Your task to perform on an android device: Clear the cart on ebay.com. Search for usb-c to usb-b on ebay.com, select the first entry, add it to the cart, then select checkout. Image 0: 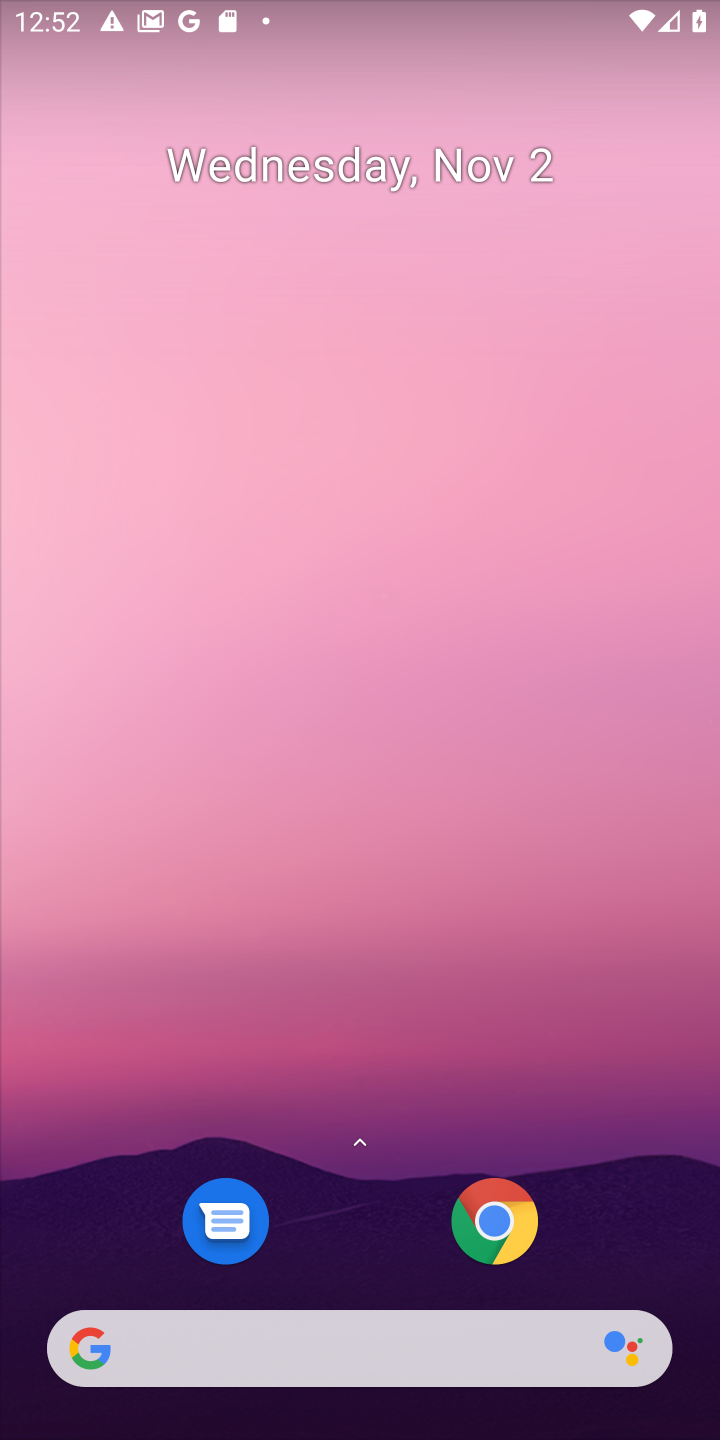
Step 0: click (277, 1388)
Your task to perform on an android device: Clear the cart on ebay.com. Search for usb-c to usb-b on ebay.com, select the first entry, add it to the cart, then select checkout. Image 1: 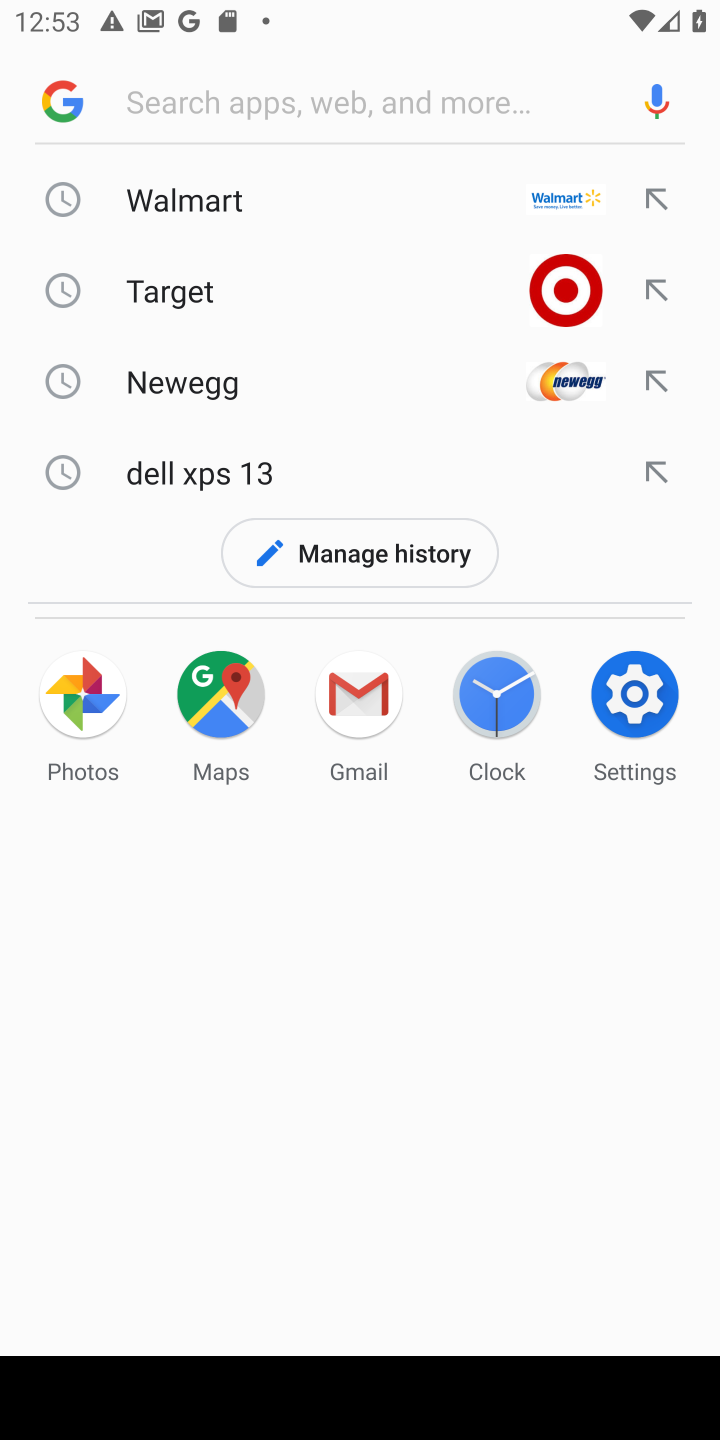
Step 1: type "ebay.com"
Your task to perform on an android device: Clear the cart on ebay.com. Search for usb-c to usb-b on ebay.com, select the first entry, add it to the cart, then select checkout. Image 2: 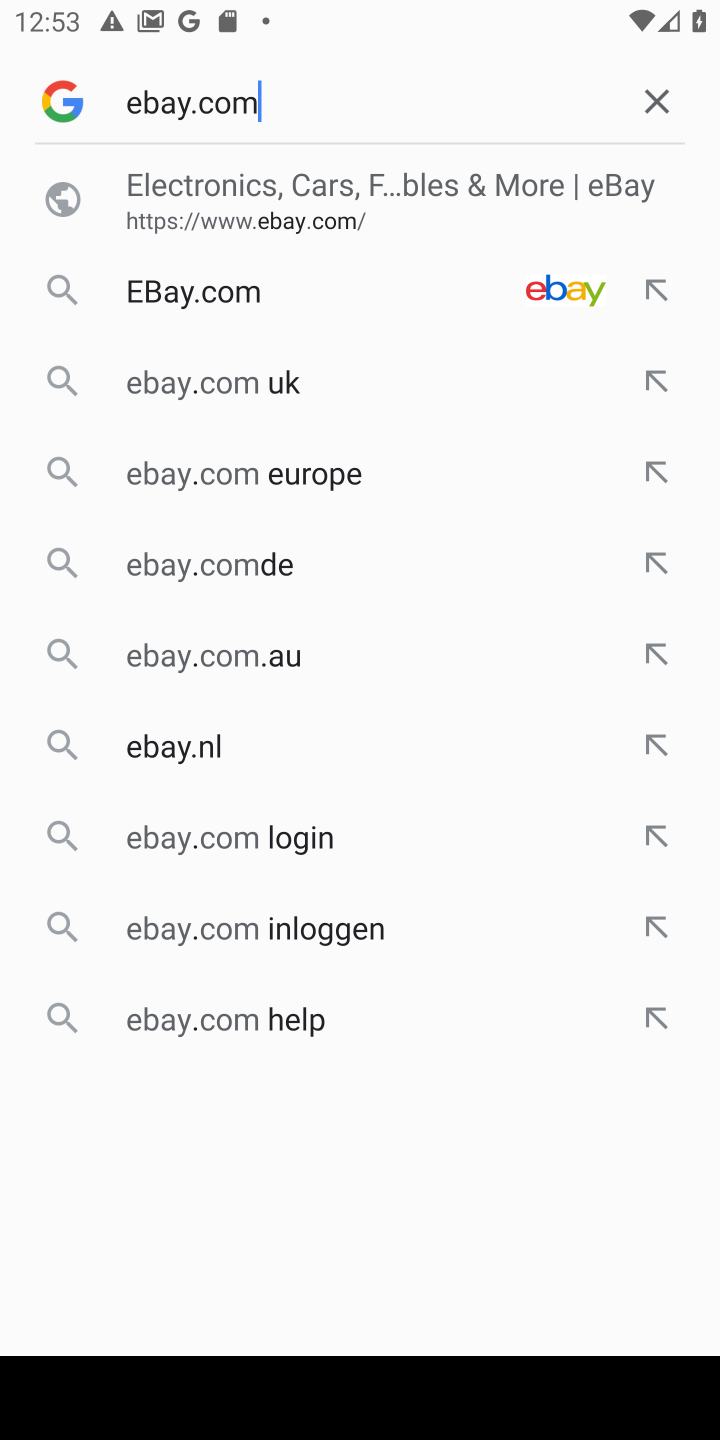
Step 2: click (243, 198)
Your task to perform on an android device: Clear the cart on ebay.com. Search for usb-c to usb-b on ebay.com, select the first entry, add it to the cart, then select checkout. Image 3: 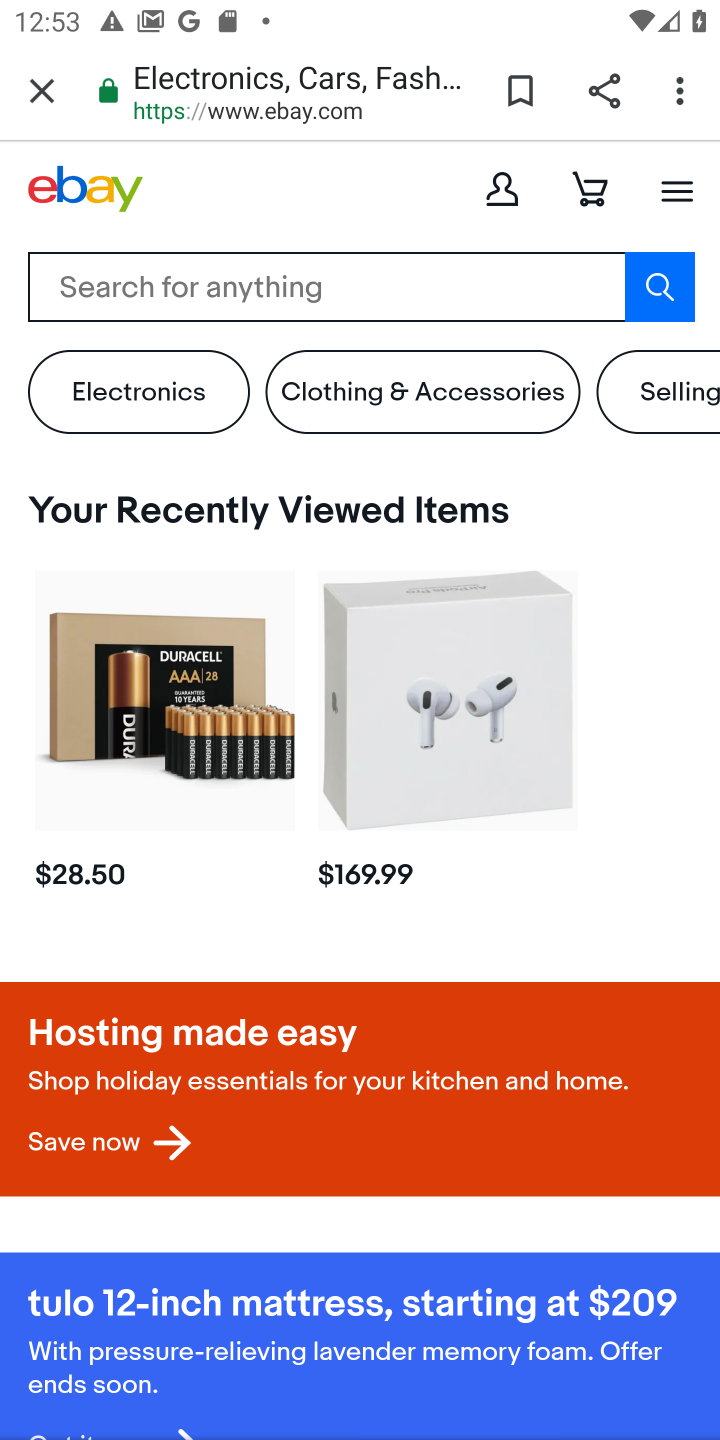
Step 3: click (211, 285)
Your task to perform on an android device: Clear the cart on ebay.com. Search for usb-c to usb-b on ebay.com, select the first entry, add it to the cart, then select checkout. Image 4: 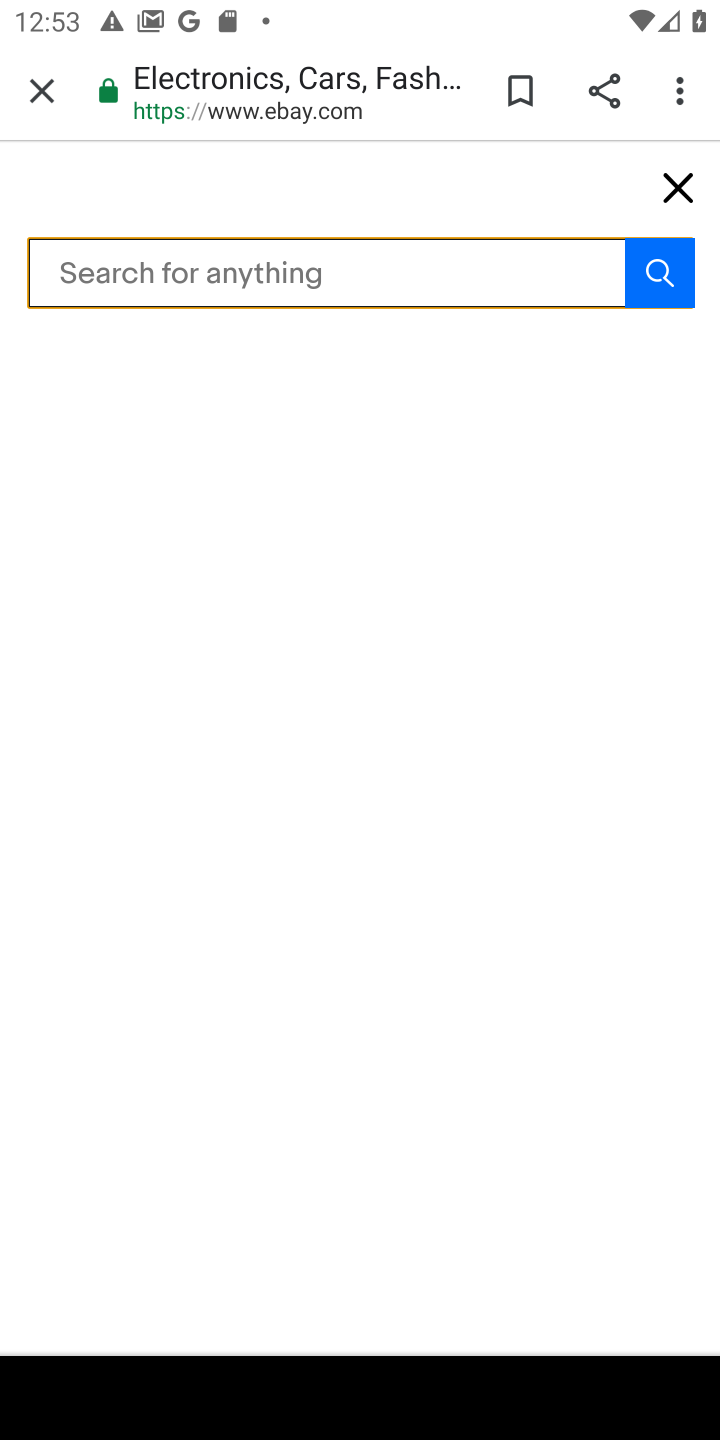
Step 4: type "usb-c to usb-b"
Your task to perform on an android device: Clear the cart on ebay.com. Search for usb-c to usb-b on ebay.com, select the first entry, add it to the cart, then select checkout. Image 5: 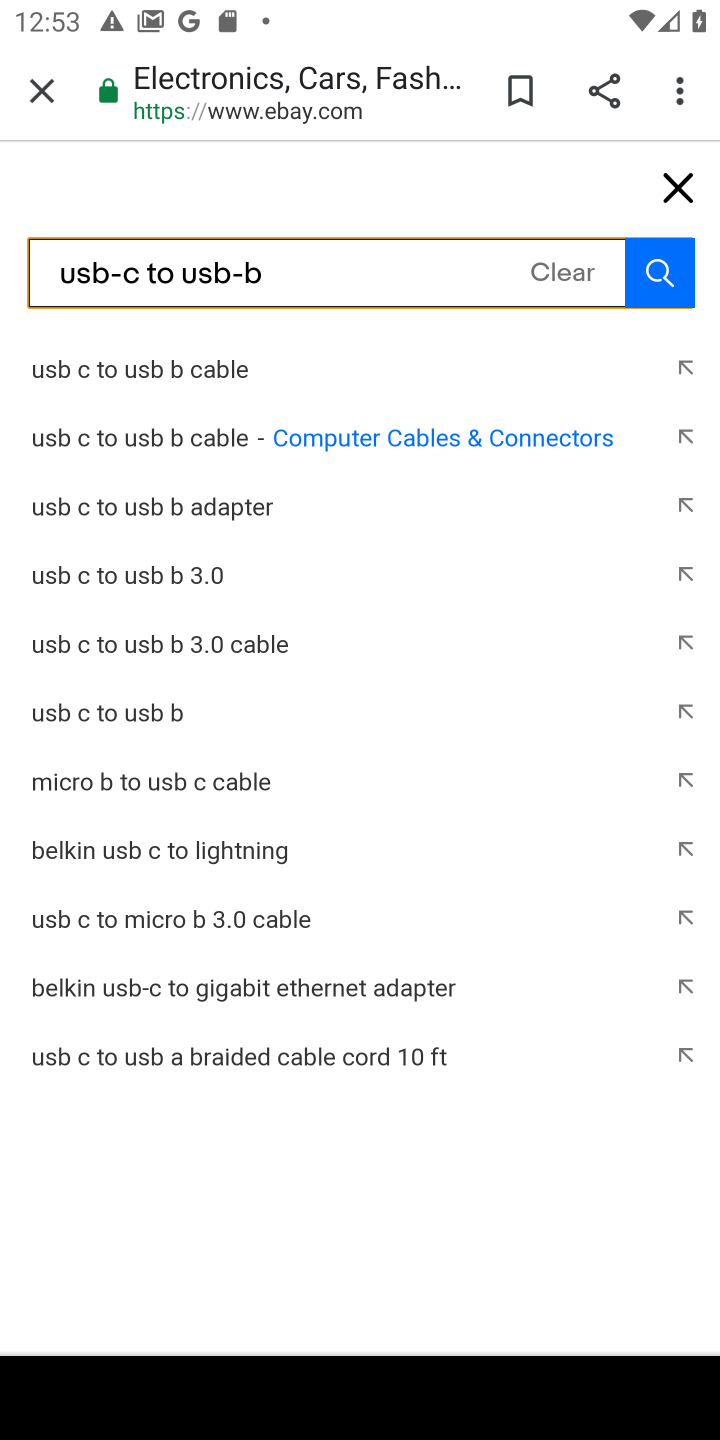
Step 5: click (333, 385)
Your task to perform on an android device: Clear the cart on ebay.com. Search for usb-c to usb-b on ebay.com, select the first entry, add it to the cart, then select checkout. Image 6: 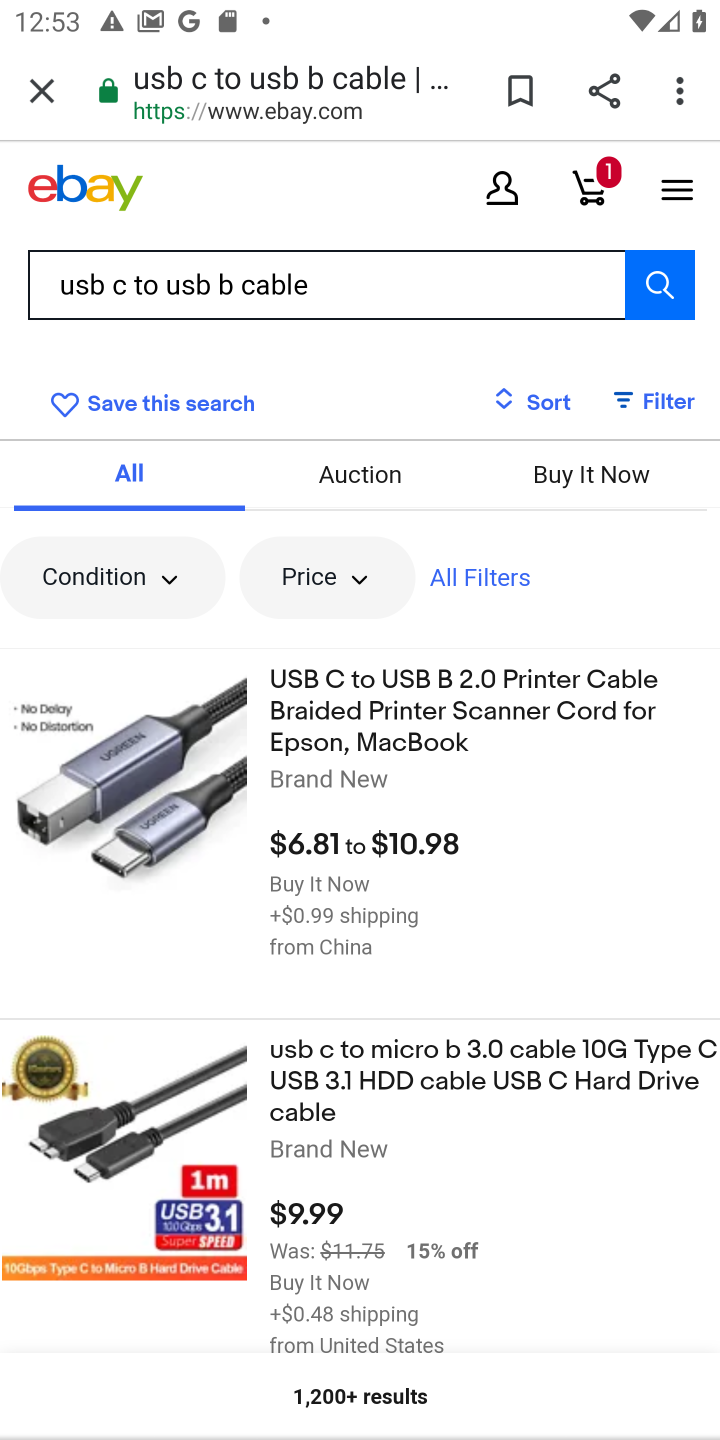
Step 6: click (332, 796)
Your task to perform on an android device: Clear the cart on ebay.com. Search for usb-c to usb-b on ebay.com, select the first entry, add it to the cart, then select checkout. Image 7: 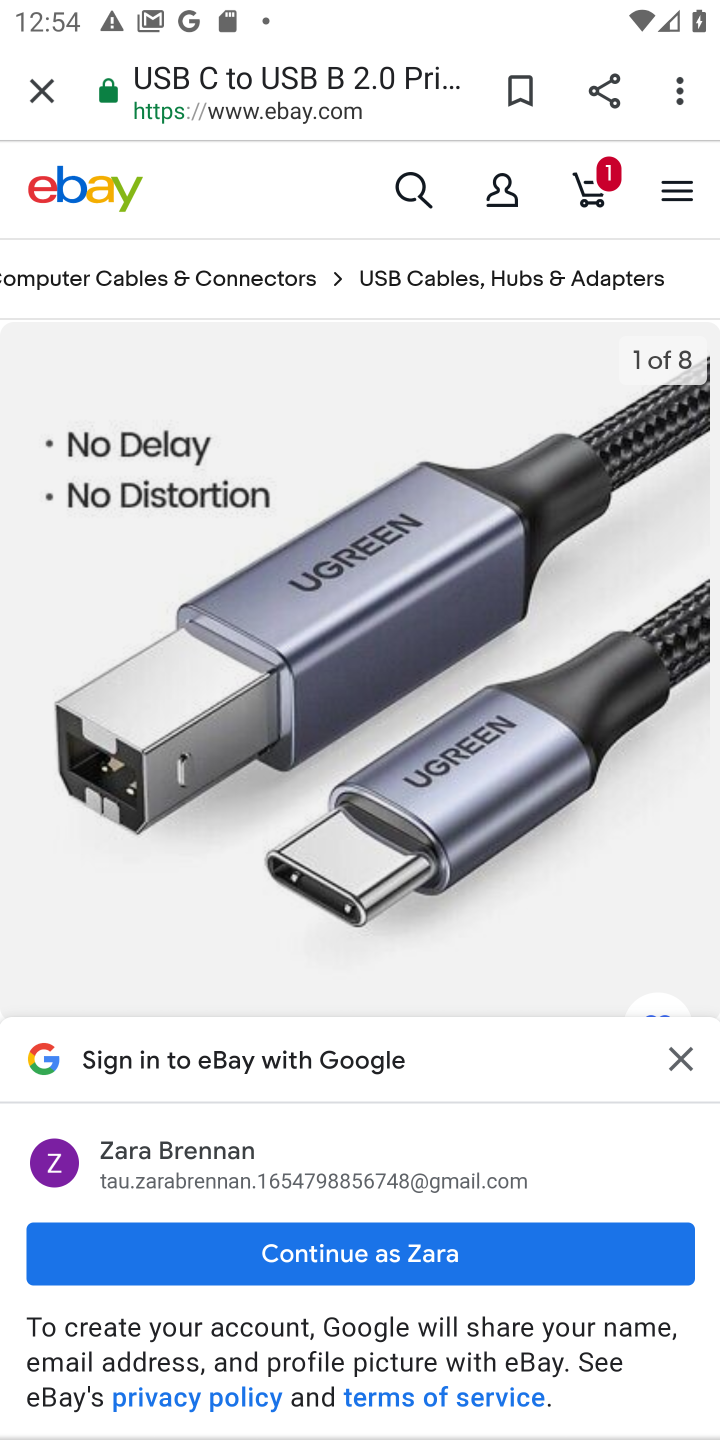
Step 7: click (342, 1246)
Your task to perform on an android device: Clear the cart on ebay.com. Search for usb-c to usb-b on ebay.com, select the first entry, add it to the cart, then select checkout. Image 8: 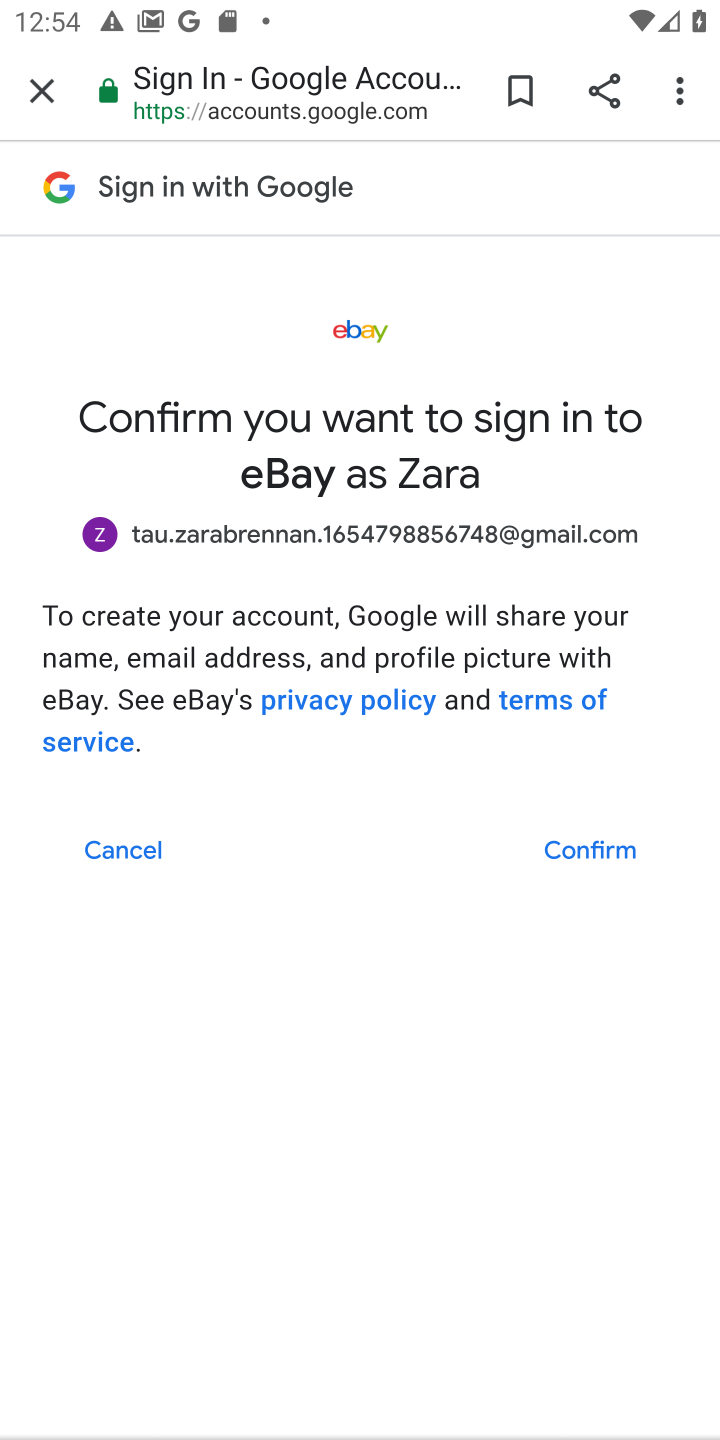
Step 8: click (592, 843)
Your task to perform on an android device: Clear the cart on ebay.com. Search for usb-c to usb-b on ebay.com, select the first entry, add it to the cart, then select checkout. Image 9: 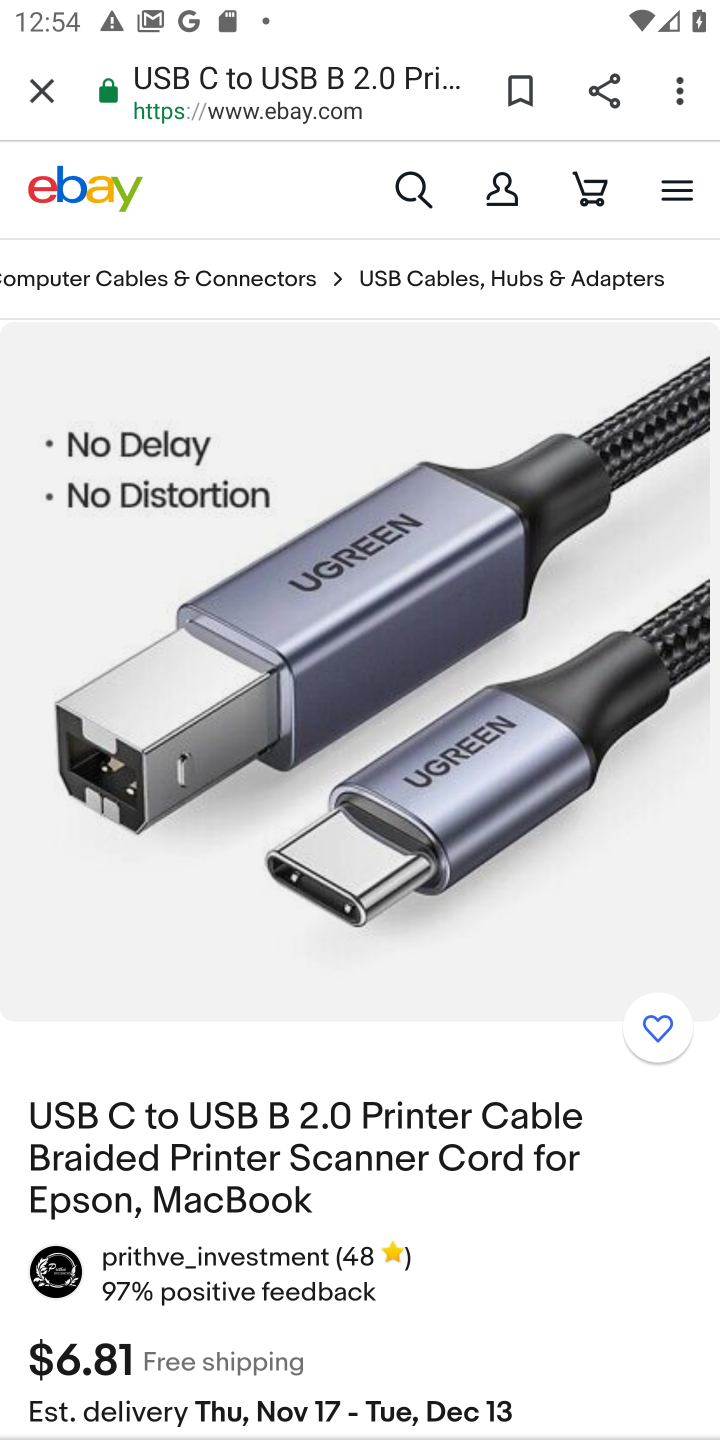
Step 9: drag from (574, 1227) to (500, 769)
Your task to perform on an android device: Clear the cart on ebay.com. Search for usb-c to usb-b on ebay.com, select the first entry, add it to the cart, then select checkout. Image 10: 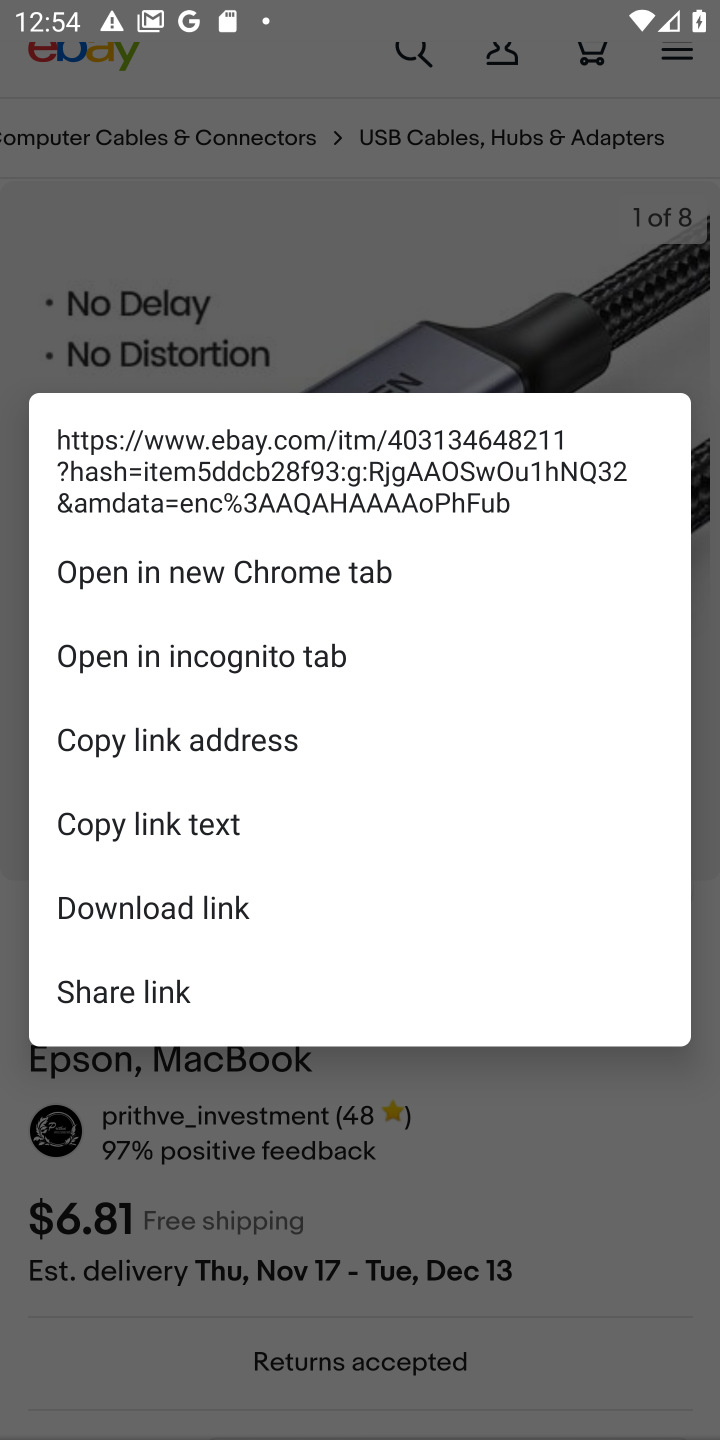
Step 10: click (409, 1187)
Your task to perform on an android device: Clear the cart on ebay.com. Search for usb-c to usb-b on ebay.com, select the first entry, add it to the cart, then select checkout. Image 11: 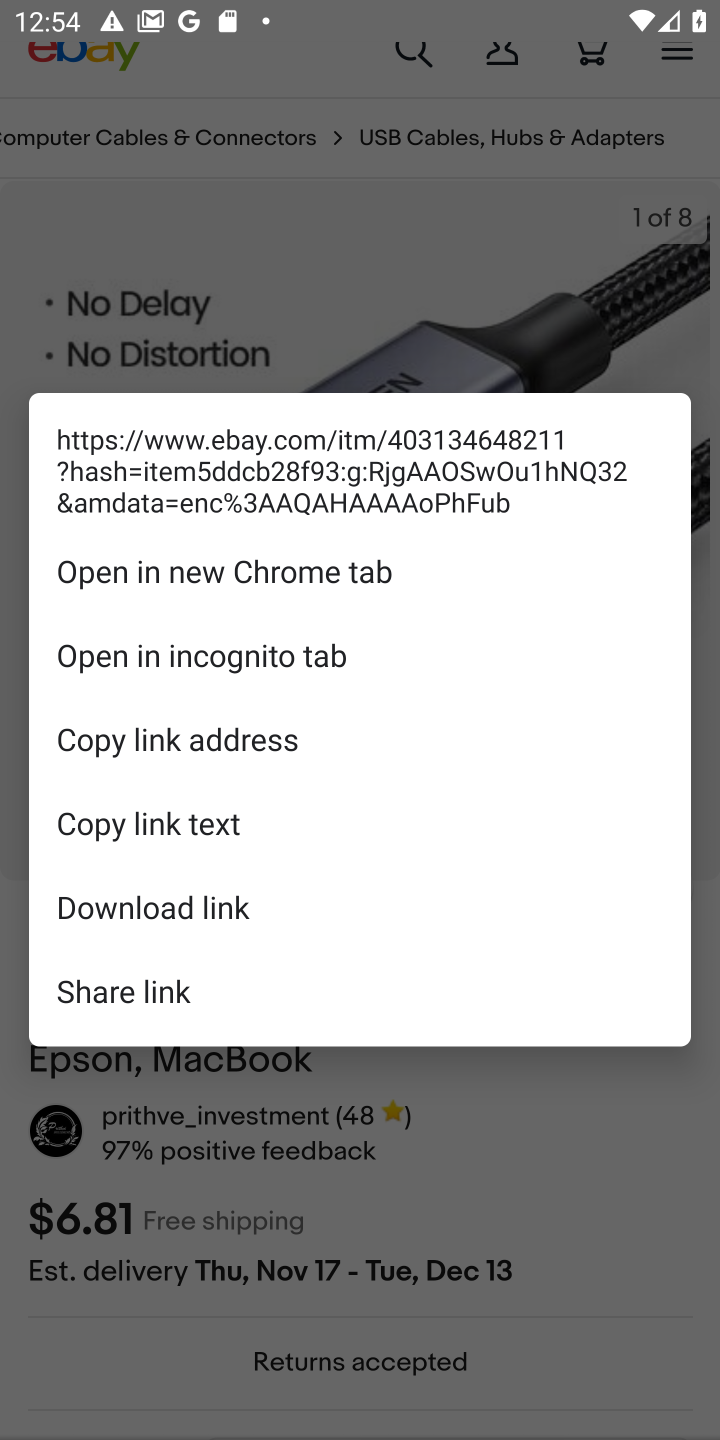
Step 11: drag from (409, 1187) to (362, 561)
Your task to perform on an android device: Clear the cart on ebay.com. Search for usb-c to usb-b on ebay.com, select the first entry, add it to the cart, then select checkout. Image 12: 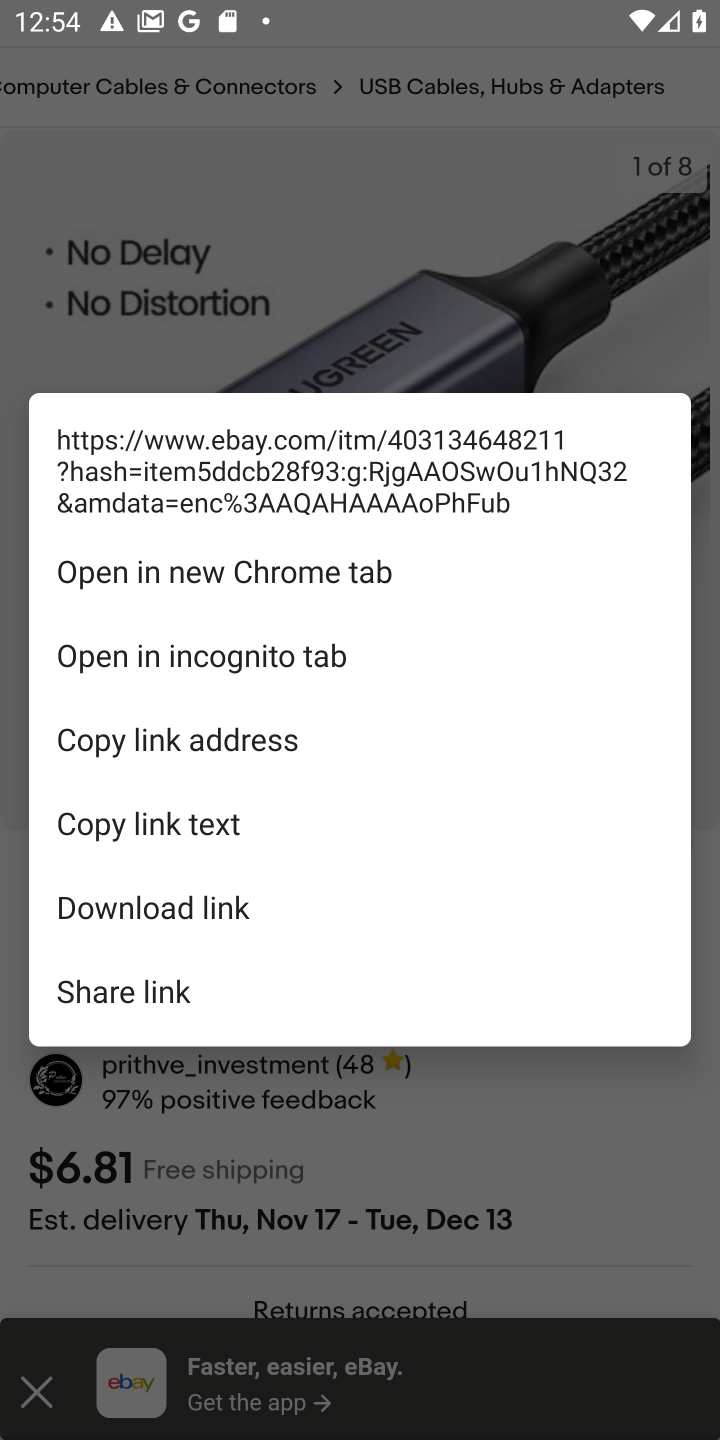
Step 12: click (510, 1216)
Your task to perform on an android device: Clear the cart on ebay.com. Search for usb-c to usb-b on ebay.com, select the first entry, add it to the cart, then select checkout. Image 13: 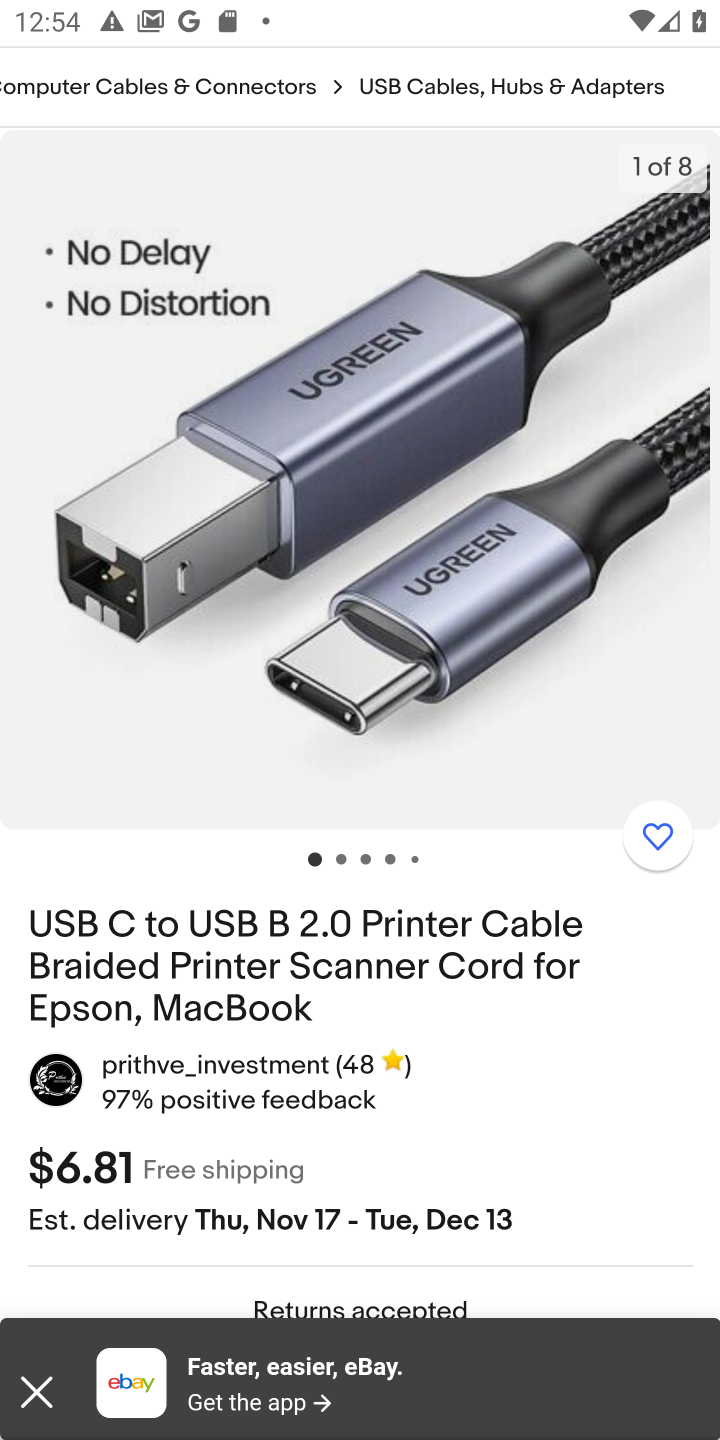
Step 13: click (70, 1391)
Your task to perform on an android device: Clear the cart on ebay.com. Search for usb-c to usb-b on ebay.com, select the first entry, add it to the cart, then select checkout. Image 14: 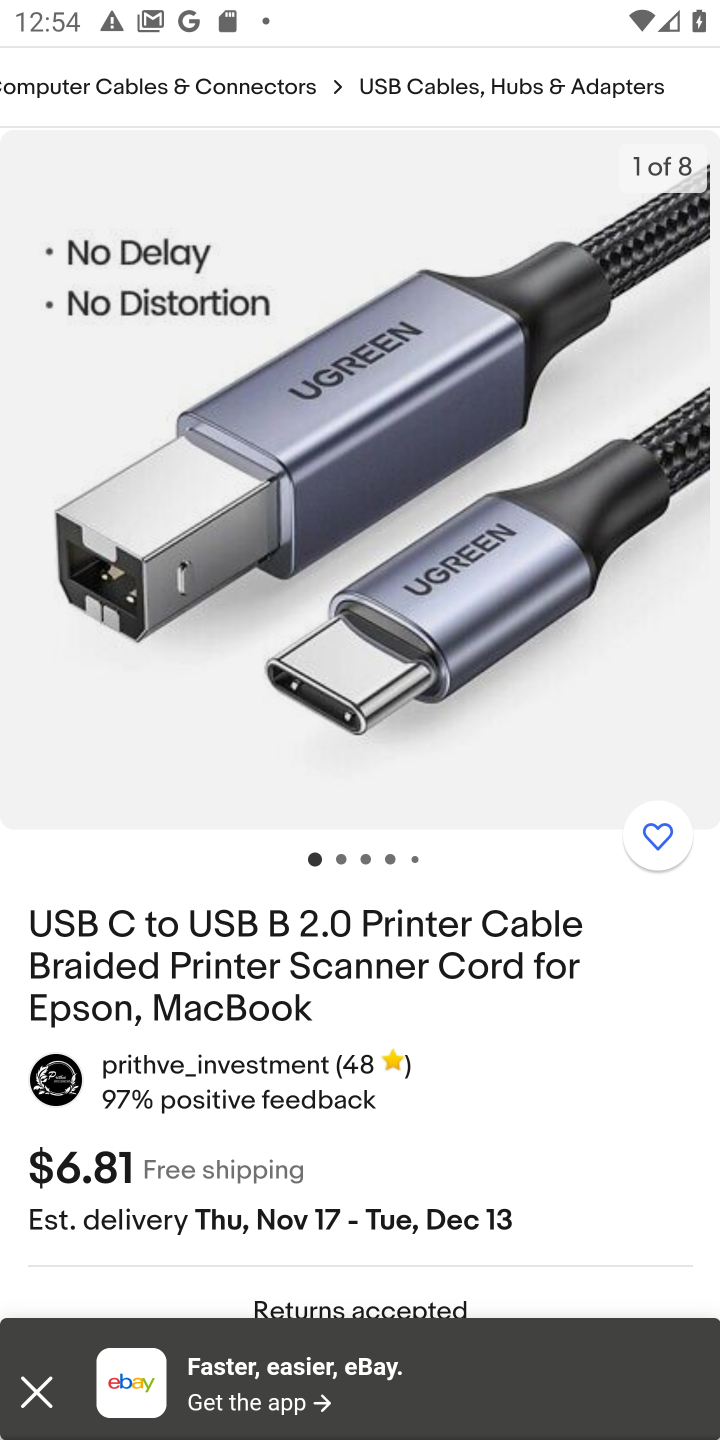
Step 14: drag from (573, 1214) to (462, 770)
Your task to perform on an android device: Clear the cart on ebay.com. Search for usb-c to usb-b on ebay.com, select the first entry, add it to the cart, then select checkout. Image 15: 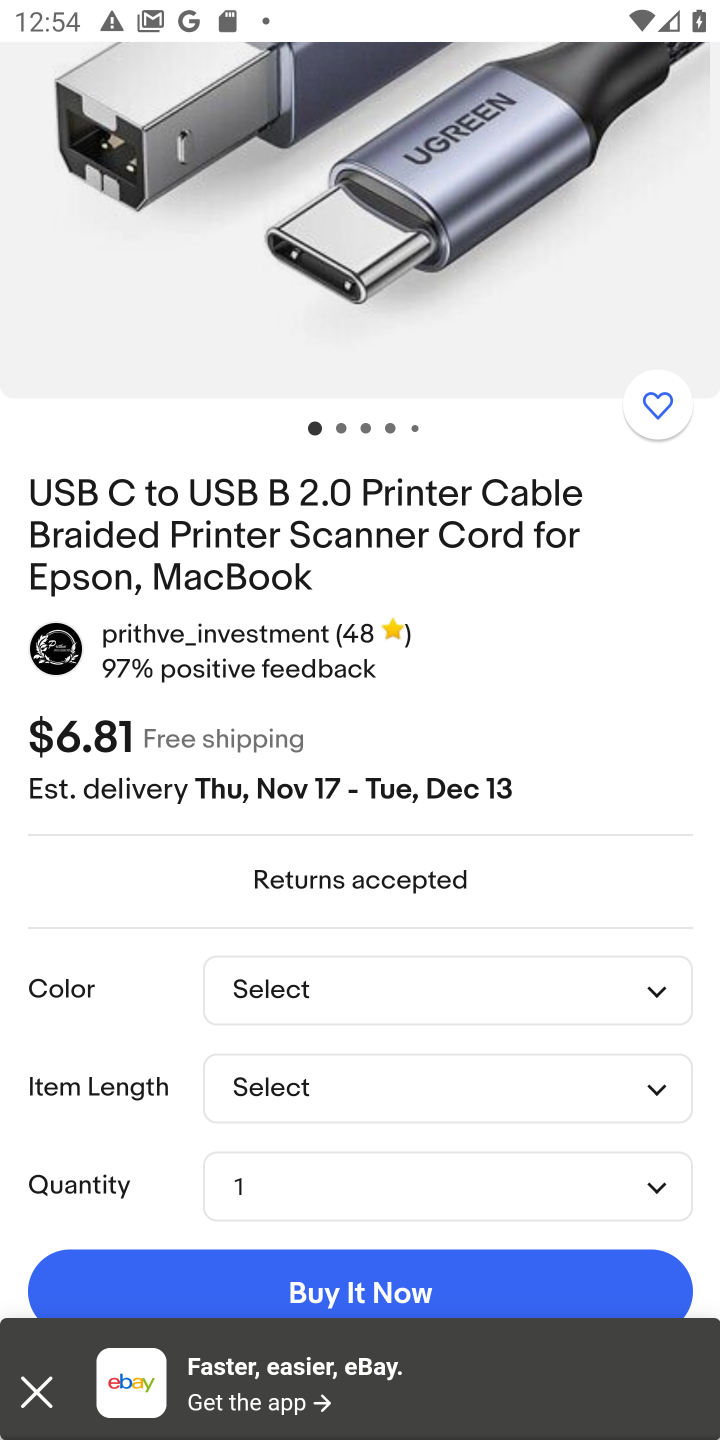
Step 15: drag from (457, 1279) to (452, 814)
Your task to perform on an android device: Clear the cart on ebay.com. Search for usb-c to usb-b on ebay.com, select the first entry, add it to the cart, then select checkout. Image 16: 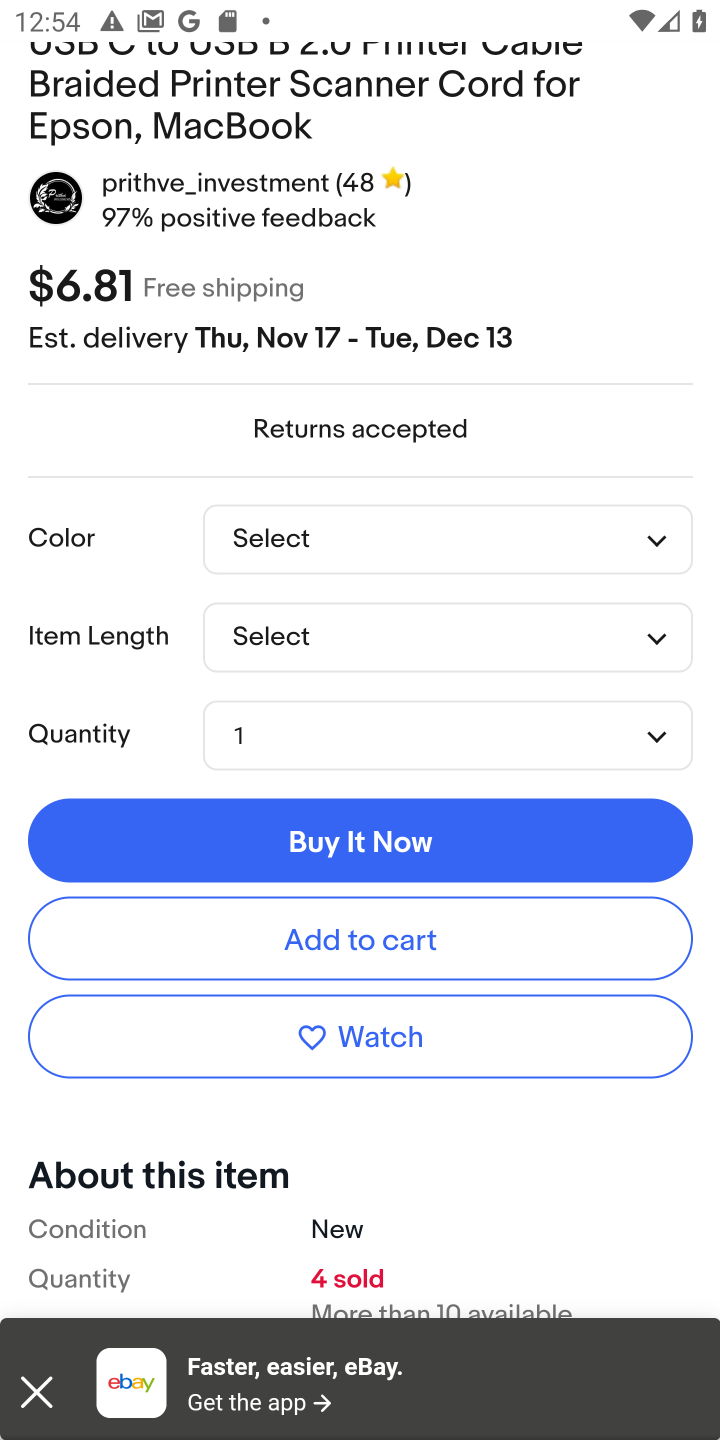
Step 16: click (444, 946)
Your task to perform on an android device: Clear the cart on ebay.com. Search for usb-c to usb-b on ebay.com, select the first entry, add it to the cart, then select checkout. Image 17: 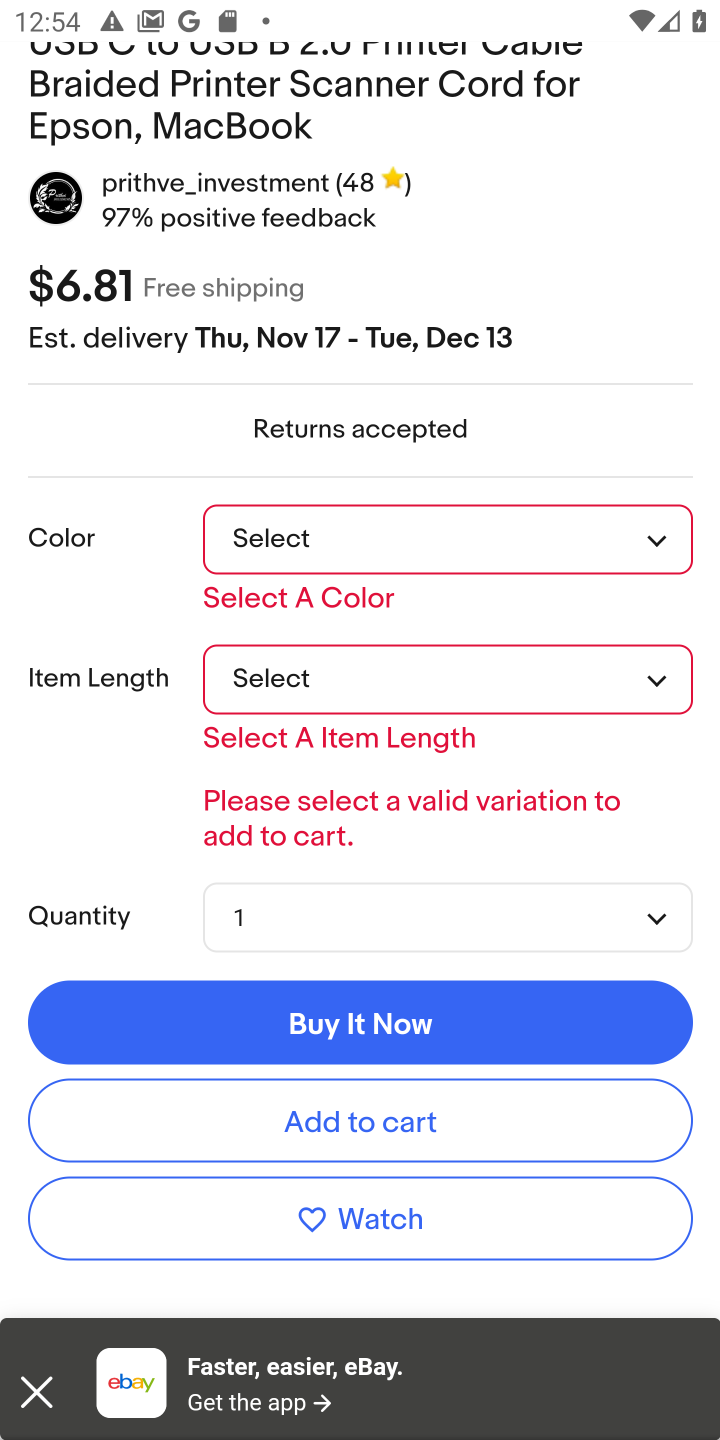
Step 17: task complete